Your task to perform on an android device: turn on airplane mode Image 0: 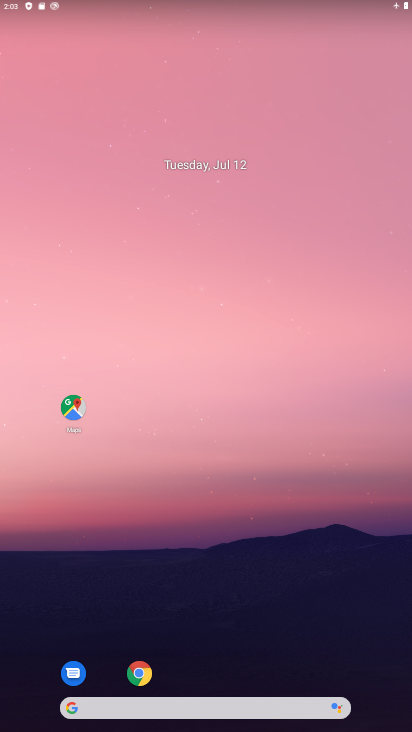
Step 0: drag from (277, 497) to (269, 301)
Your task to perform on an android device: turn on airplane mode Image 1: 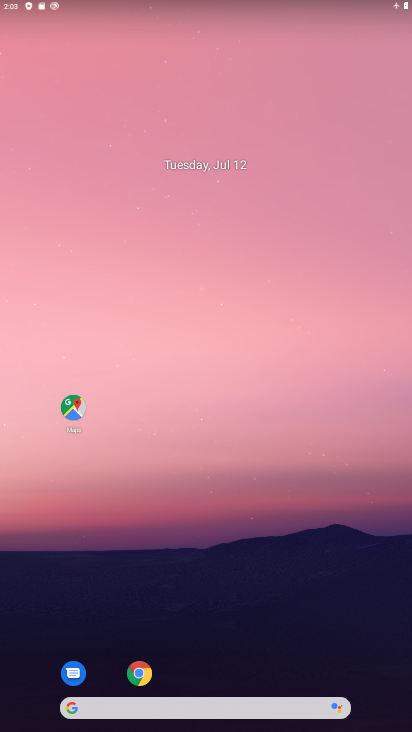
Step 1: drag from (219, 590) to (226, 284)
Your task to perform on an android device: turn on airplane mode Image 2: 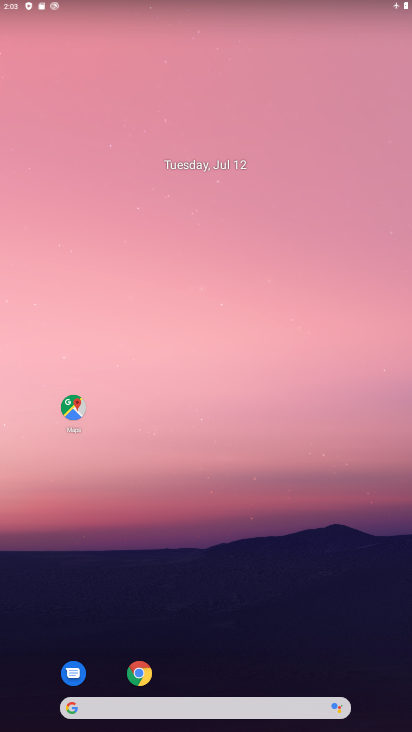
Step 2: drag from (277, 631) to (267, 317)
Your task to perform on an android device: turn on airplane mode Image 3: 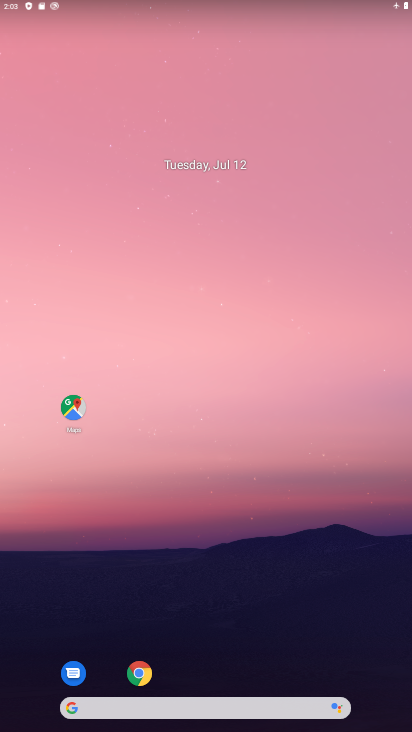
Step 3: drag from (195, 629) to (197, 290)
Your task to perform on an android device: turn on airplane mode Image 4: 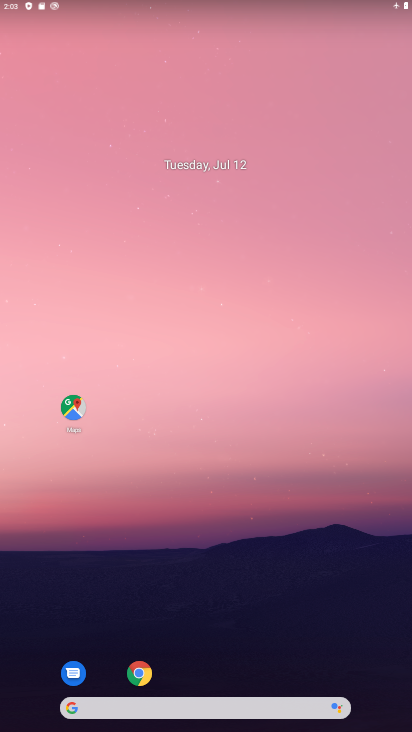
Step 4: drag from (283, 593) to (270, 120)
Your task to perform on an android device: turn on airplane mode Image 5: 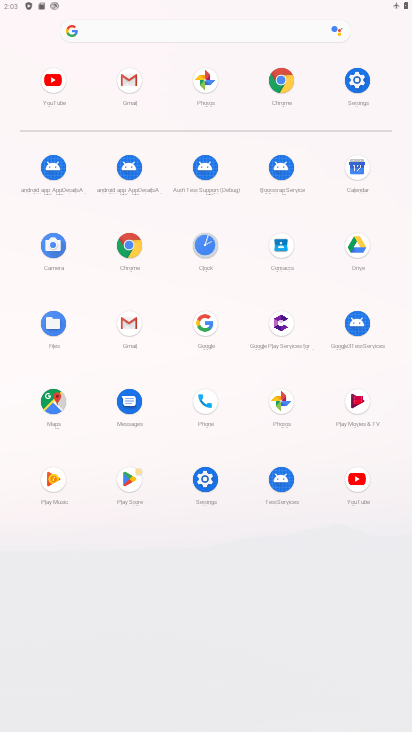
Step 5: click (357, 72)
Your task to perform on an android device: turn on airplane mode Image 6: 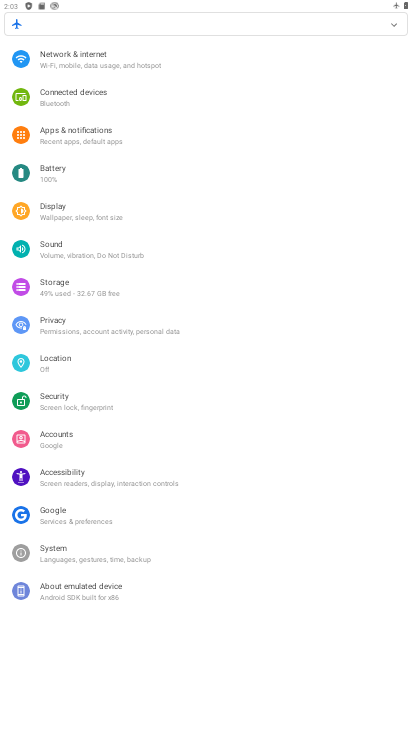
Step 6: click (81, 62)
Your task to perform on an android device: turn on airplane mode Image 7: 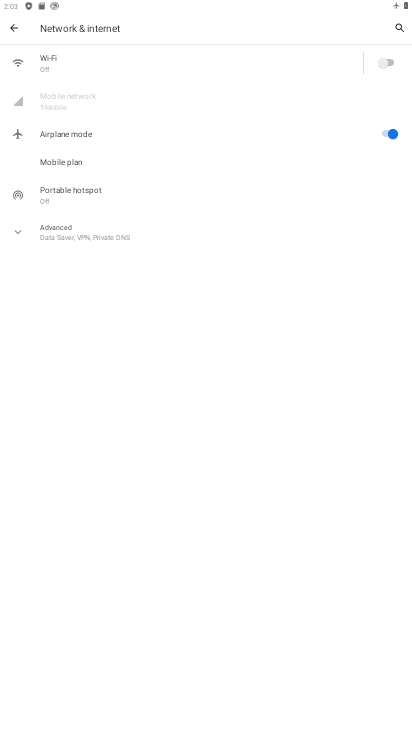
Step 7: task complete